Your task to perform on an android device: Open maps Image 0: 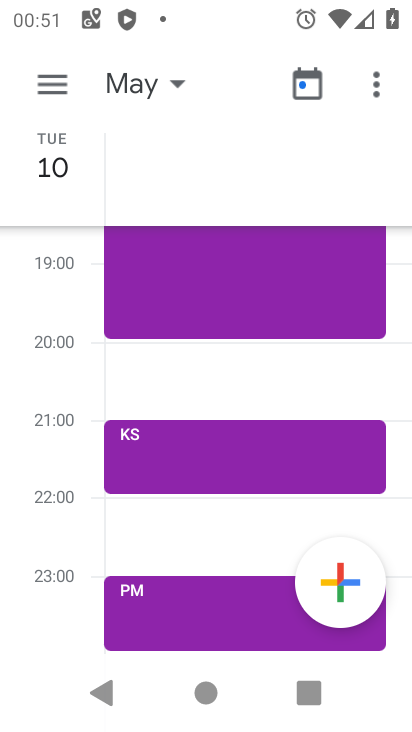
Step 0: press home button
Your task to perform on an android device: Open maps Image 1: 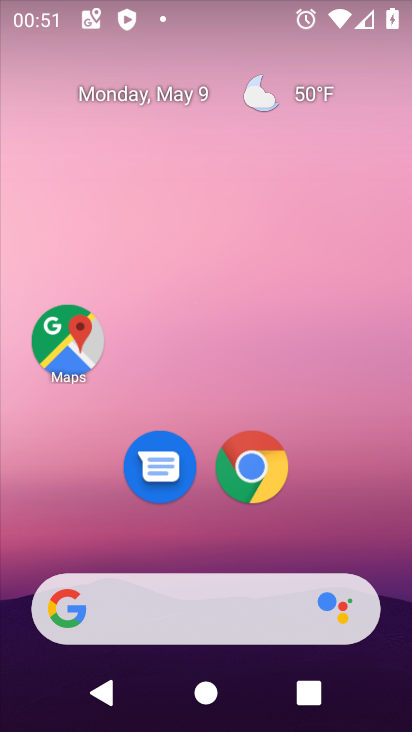
Step 1: click (67, 346)
Your task to perform on an android device: Open maps Image 2: 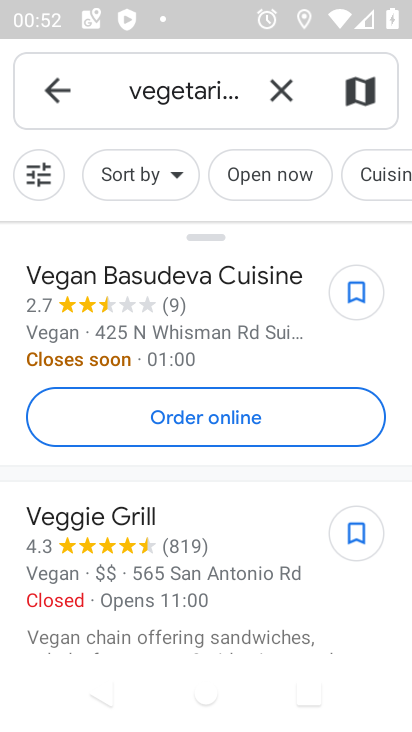
Step 2: click (276, 91)
Your task to perform on an android device: Open maps Image 3: 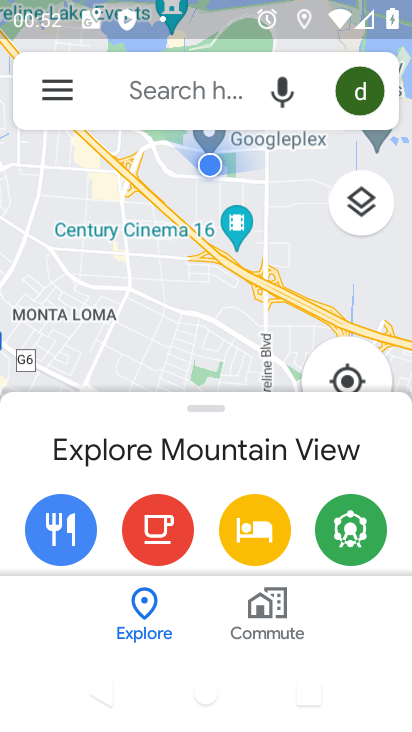
Step 3: task complete